Your task to perform on an android device: How much does a 2 bedroom apartment rent for in Houston? Image 0: 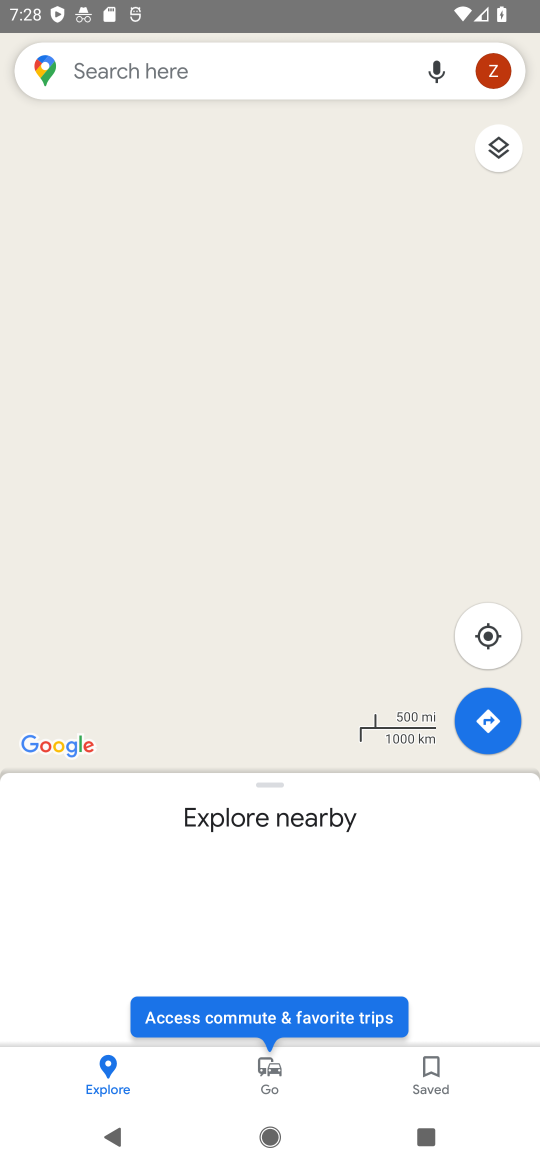
Step 0: press home button
Your task to perform on an android device: How much does a 2 bedroom apartment rent for in Houston? Image 1: 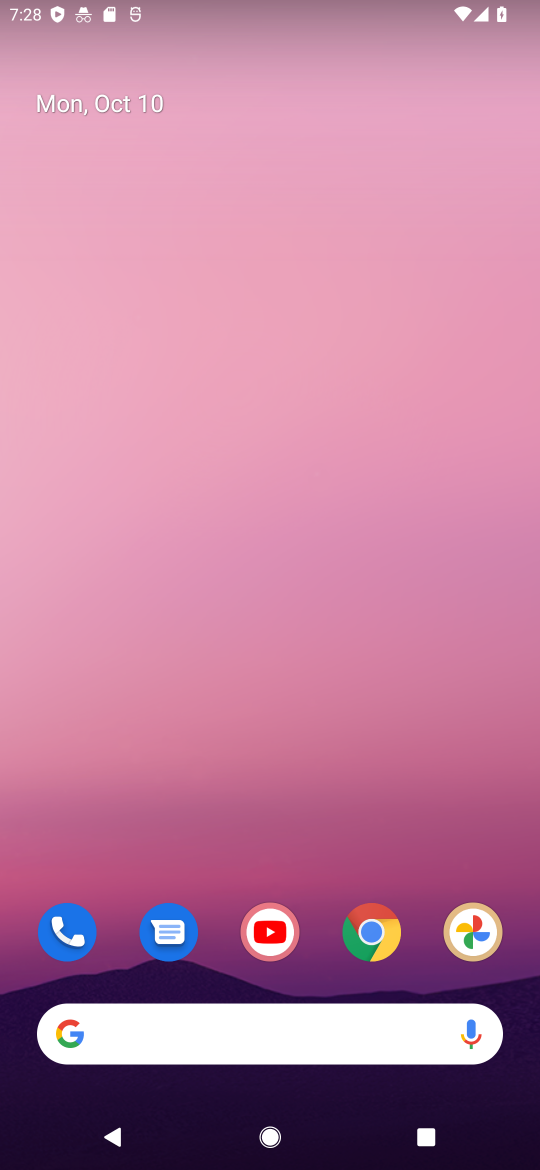
Step 1: drag from (382, 303) to (400, 160)
Your task to perform on an android device: How much does a 2 bedroom apartment rent for in Houston? Image 2: 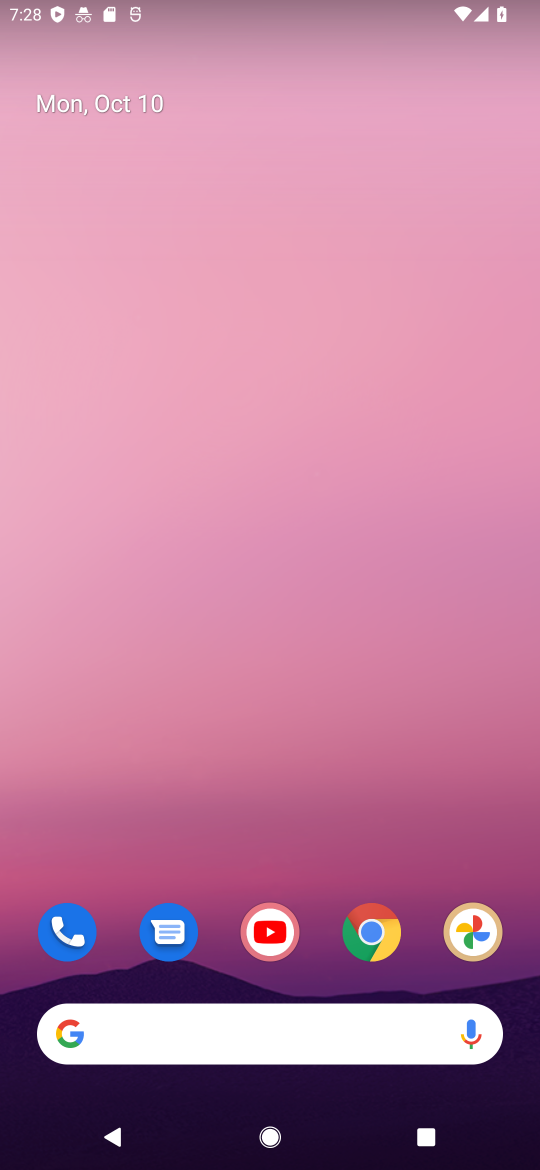
Step 2: drag from (336, 986) to (296, 187)
Your task to perform on an android device: How much does a 2 bedroom apartment rent for in Houston? Image 3: 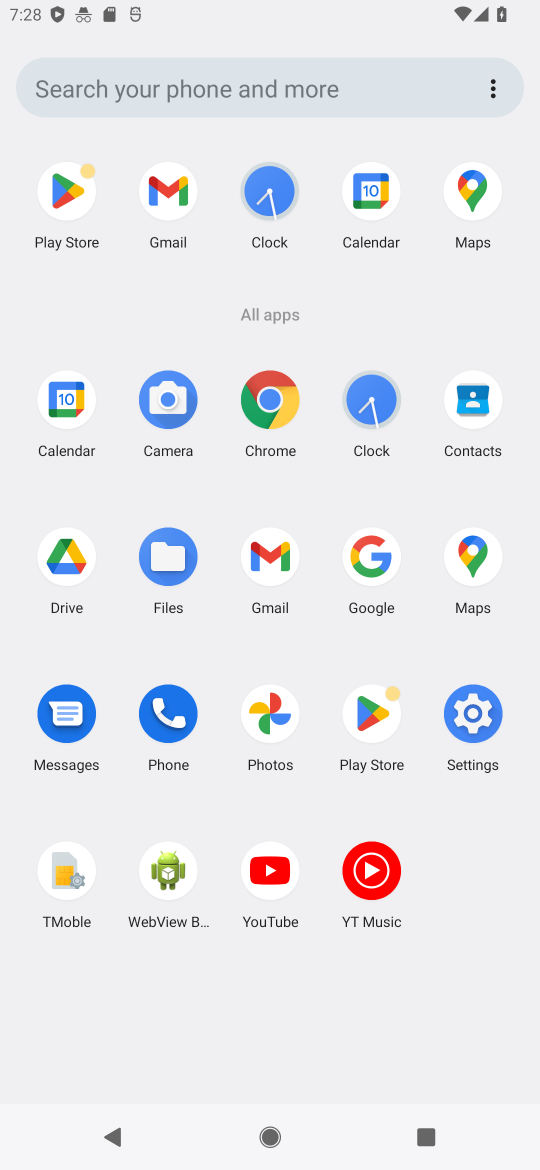
Step 3: click (261, 399)
Your task to perform on an android device: How much does a 2 bedroom apartment rent for in Houston? Image 4: 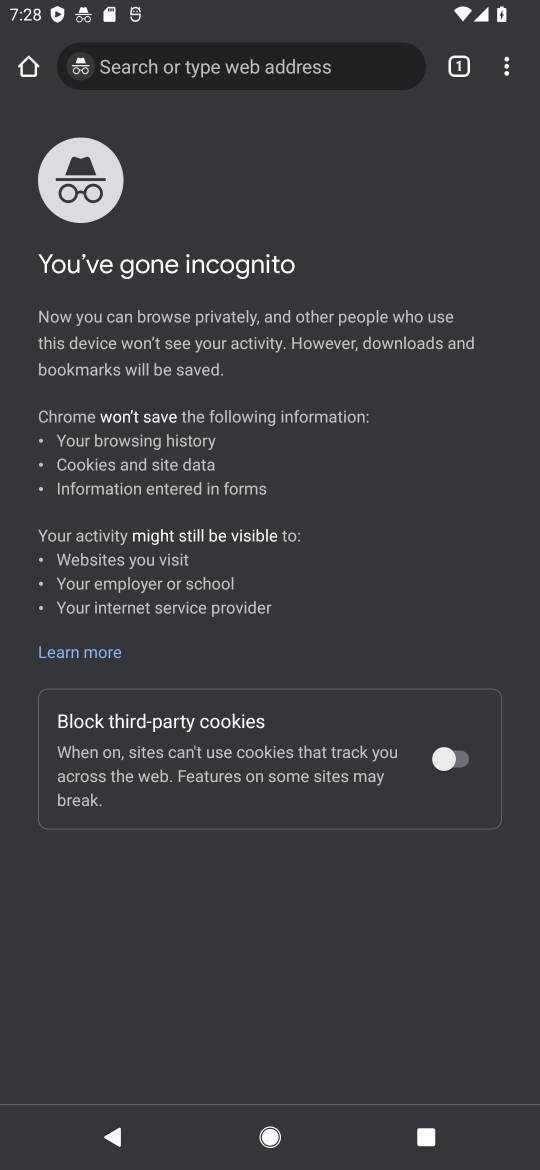
Step 4: click (277, 80)
Your task to perform on an android device: How much does a 2 bedroom apartment rent for in Houston? Image 5: 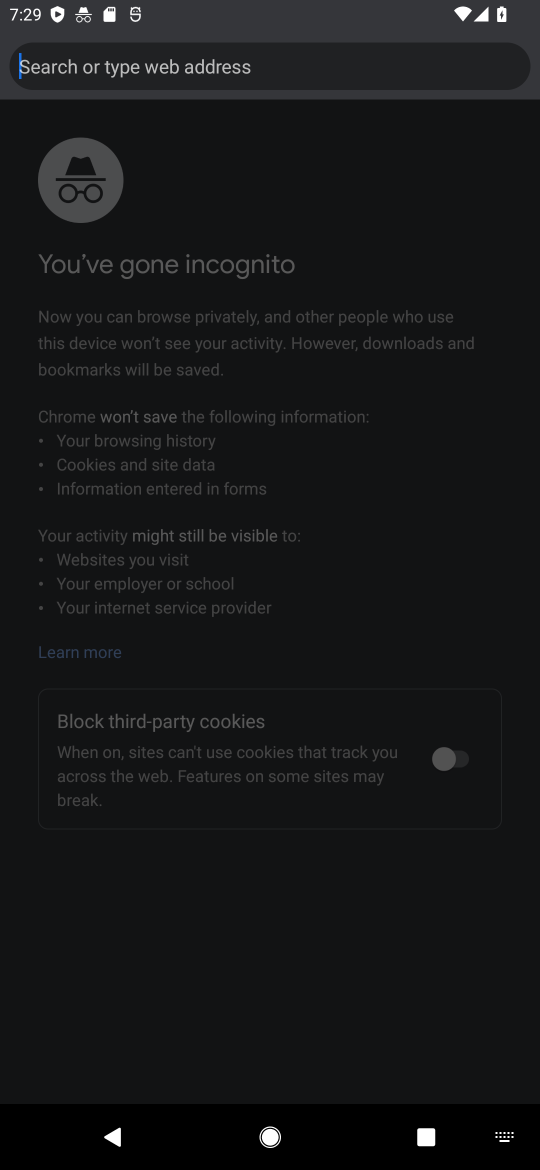
Step 5: type "How much does a 2 bedroom apartment rent for in Houston?"
Your task to perform on an android device: How much does a 2 bedroom apartment rent for in Houston? Image 6: 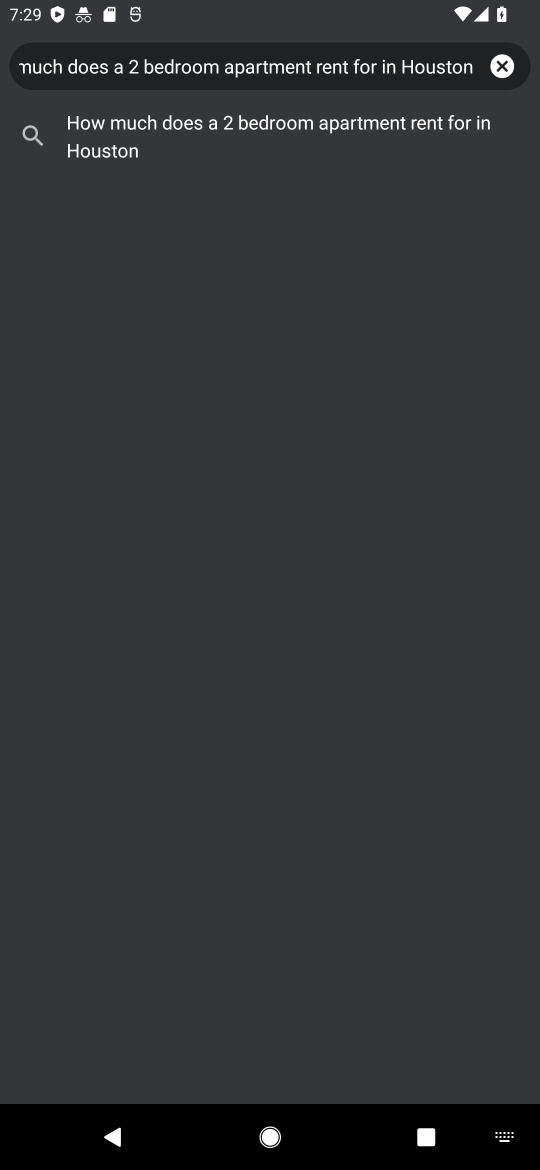
Step 6: press enter
Your task to perform on an android device: How much does a 2 bedroom apartment rent for in Houston? Image 7: 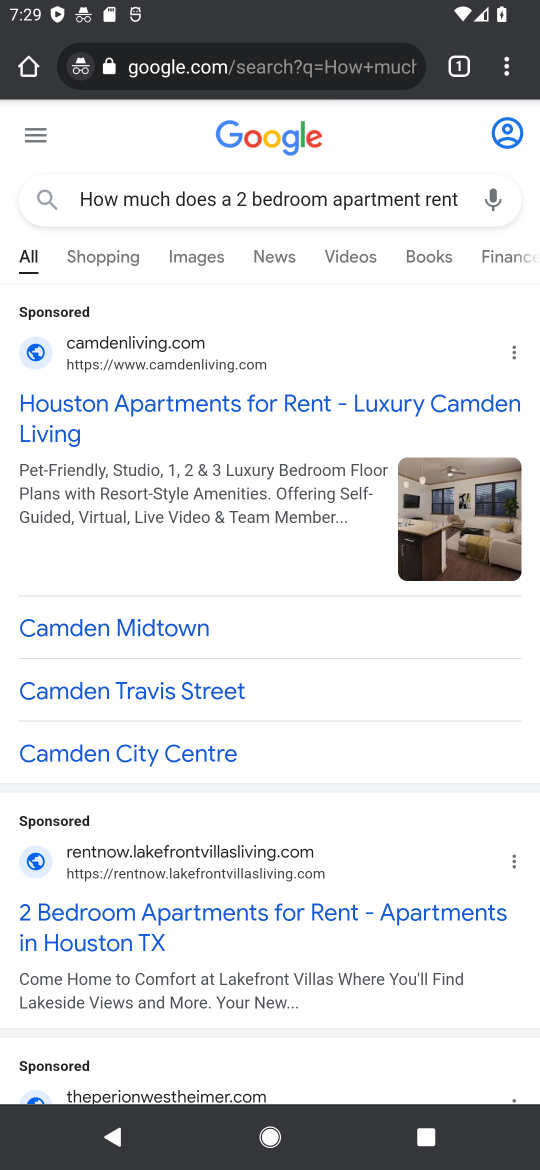
Step 7: click (210, 908)
Your task to perform on an android device: How much does a 2 bedroom apartment rent for in Houston? Image 8: 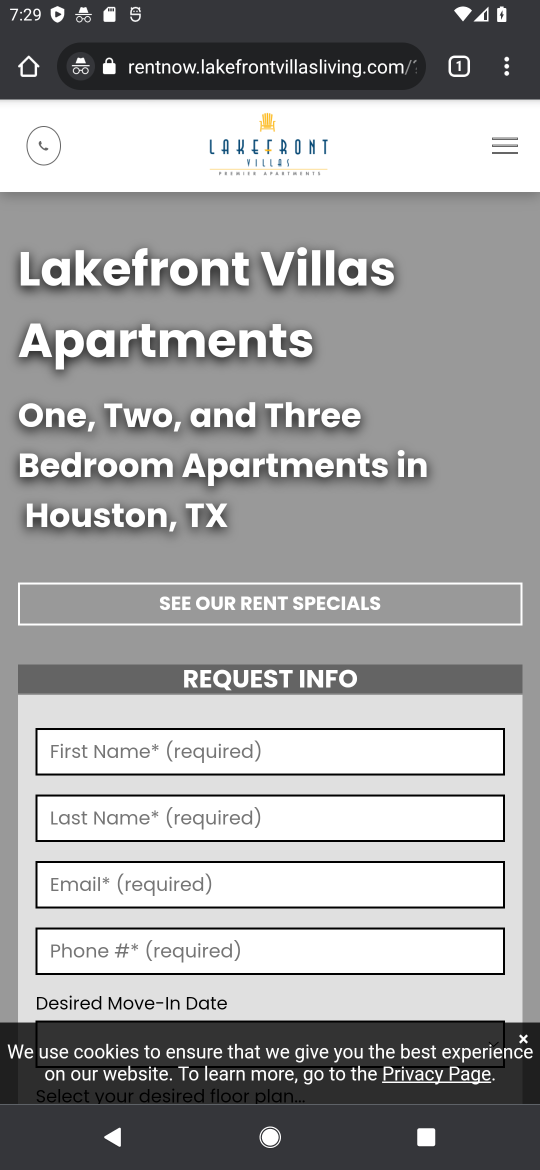
Step 8: press back button
Your task to perform on an android device: How much does a 2 bedroom apartment rent for in Houston? Image 9: 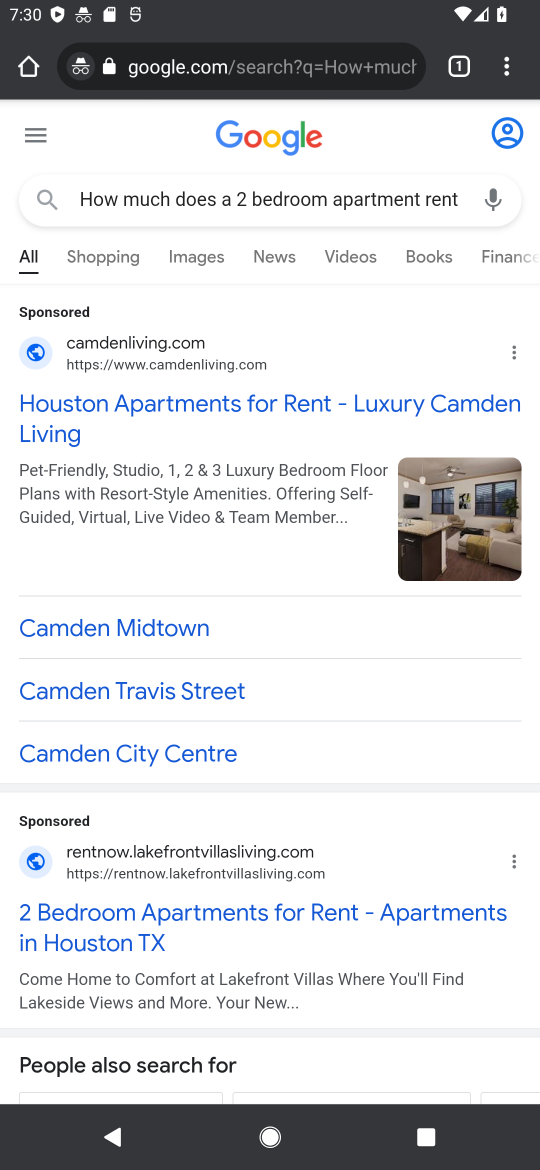
Step 9: drag from (198, 783) to (266, 88)
Your task to perform on an android device: How much does a 2 bedroom apartment rent for in Houston? Image 10: 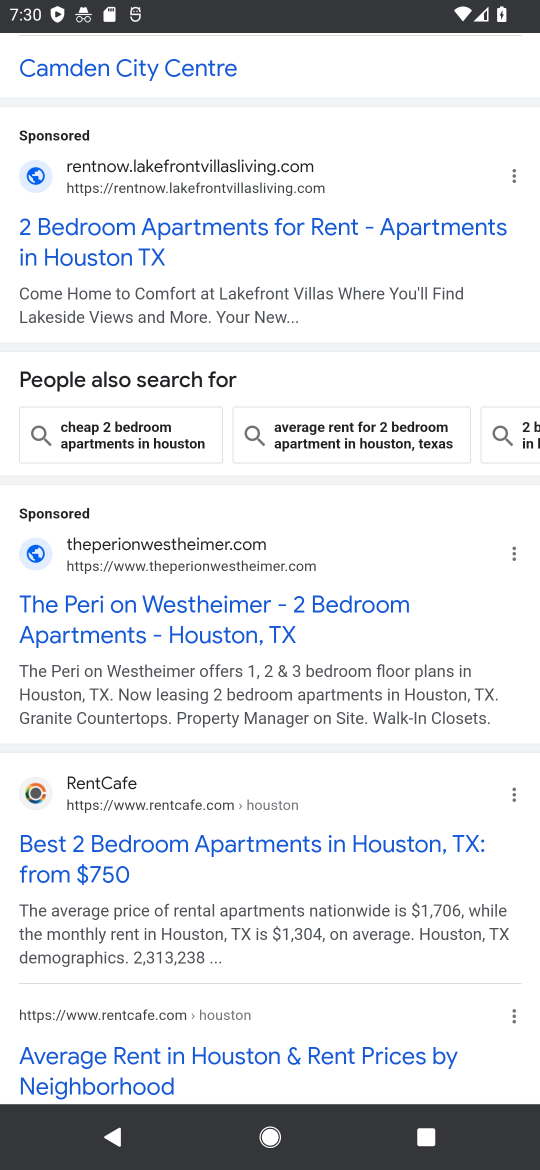
Step 10: click (222, 861)
Your task to perform on an android device: How much does a 2 bedroom apartment rent for in Houston? Image 11: 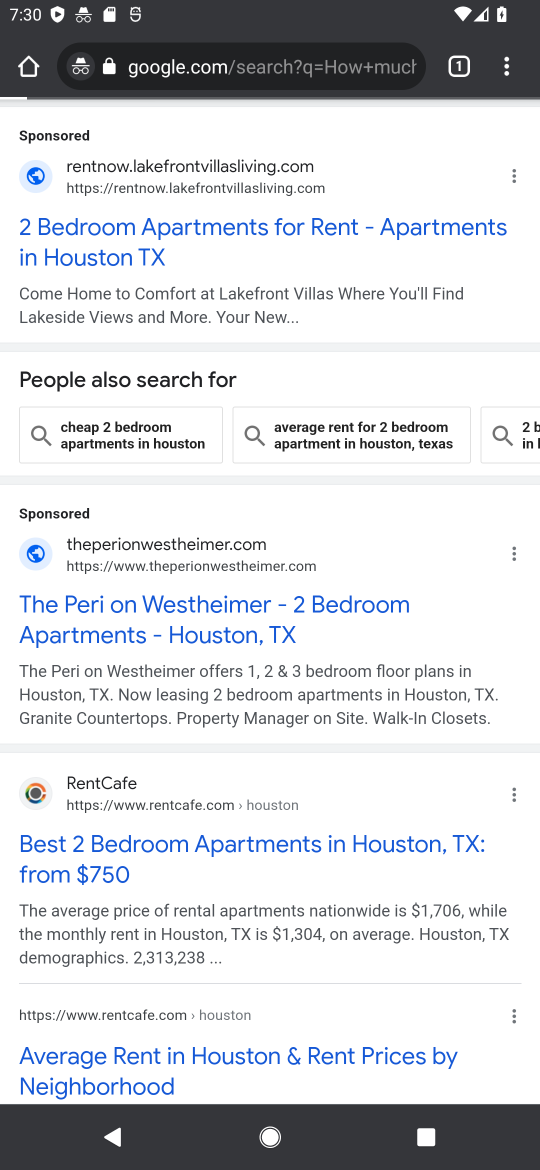
Step 11: click (199, 846)
Your task to perform on an android device: How much does a 2 bedroom apartment rent for in Houston? Image 12: 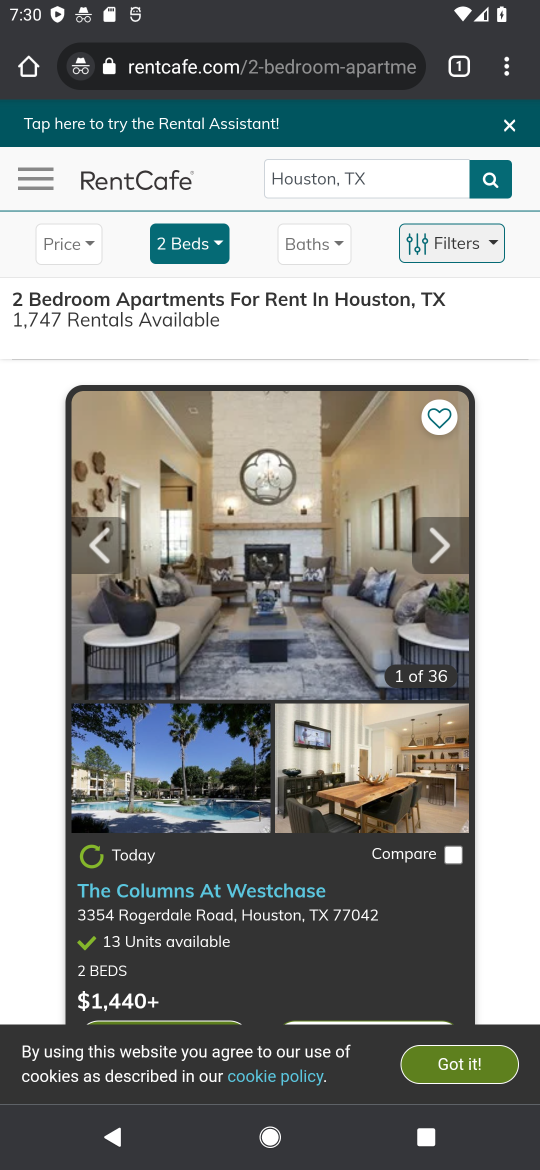
Step 12: task complete